Your task to perform on an android device: Go to Yahoo.com Image 0: 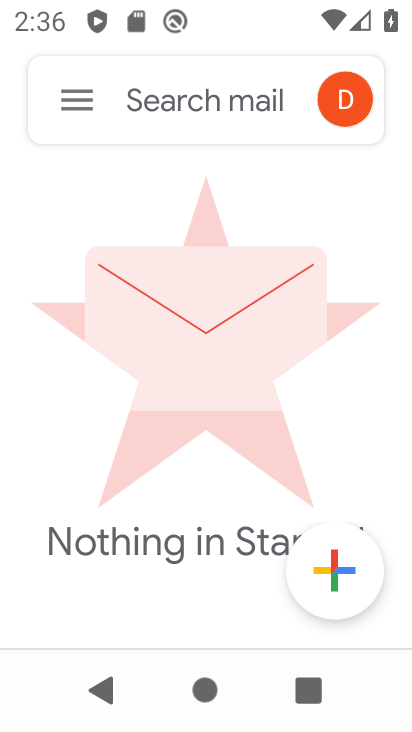
Step 0: press home button
Your task to perform on an android device: Go to Yahoo.com Image 1: 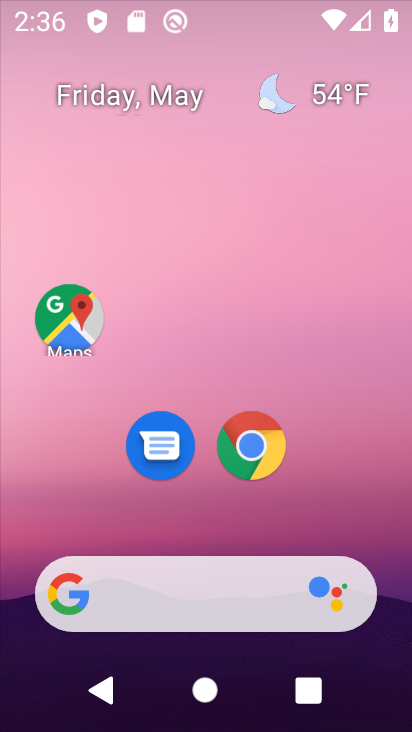
Step 1: drag from (340, 539) to (309, 138)
Your task to perform on an android device: Go to Yahoo.com Image 2: 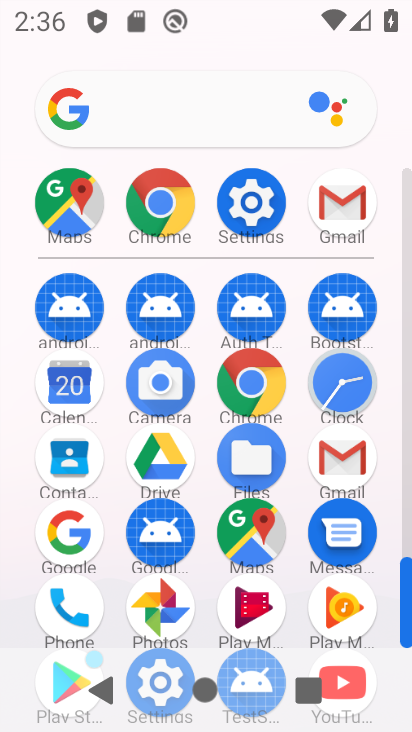
Step 2: click (257, 384)
Your task to perform on an android device: Go to Yahoo.com Image 3: 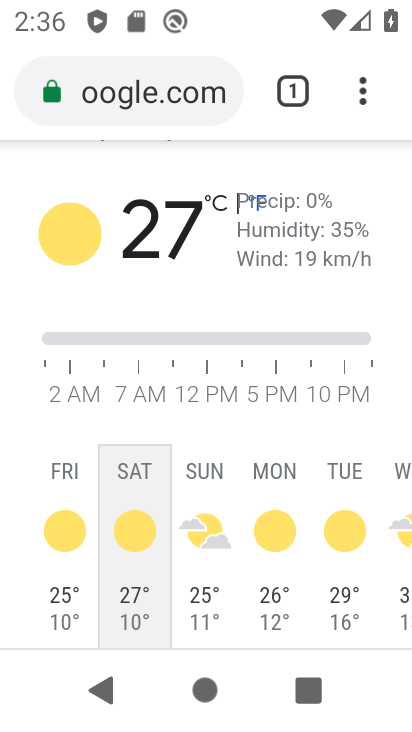
Step 3: click (165, 110)
Your task to perform on an android device: Go to Yahoo.com Image 4: 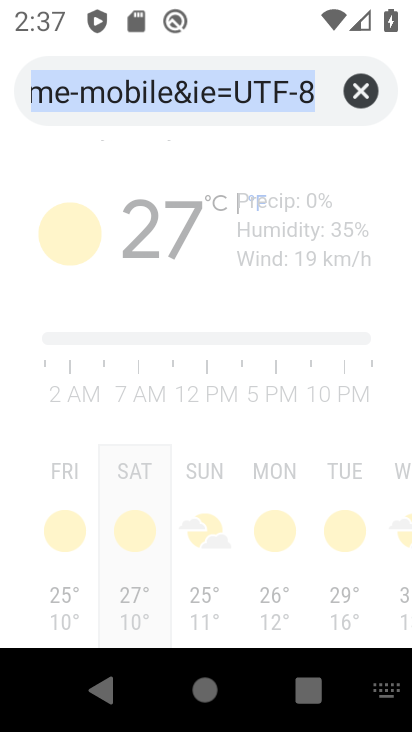
Step 4: click (369, 99)
Your task to perform on an android device: Go to Yahoo.com Image 5: 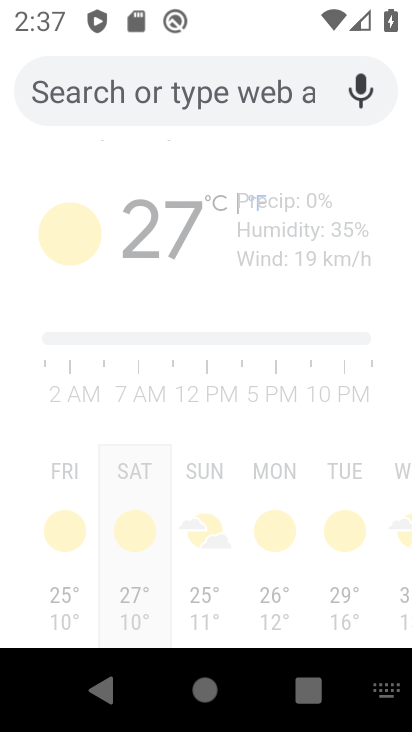
Step 5: type "yahoo.com"
Your task to perform on an android device: Go to Yahoo.com Image 6: 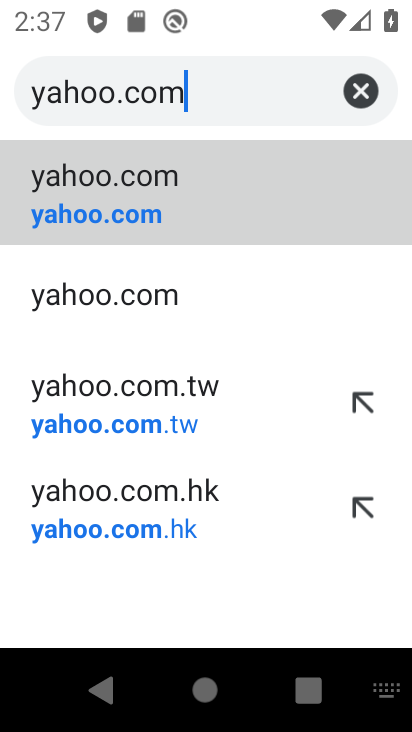
Step 6: click (56, 180)
Your task to perform on an android device: Go to Yahoo.com Image 7: 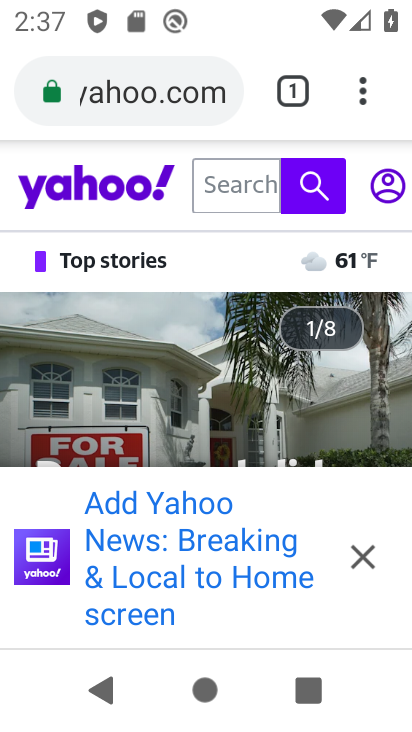
Step 7: task complete